Your task to perform on an android device: Show me popular videos on Youtube Image 0: 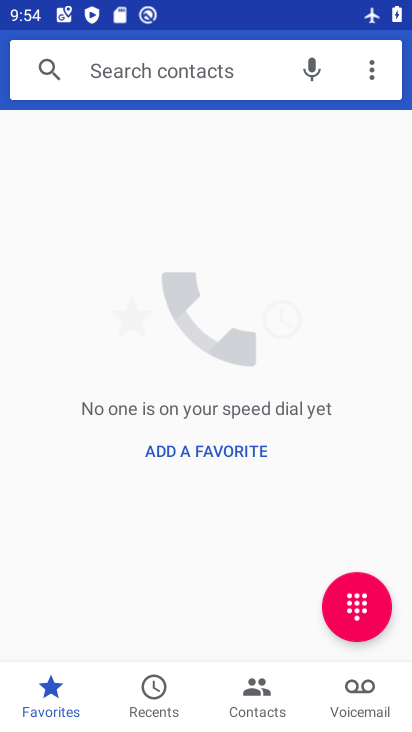
Step 0: press home button
Your task to perform on an android device: Show me popular videos on Youtube Image 1: 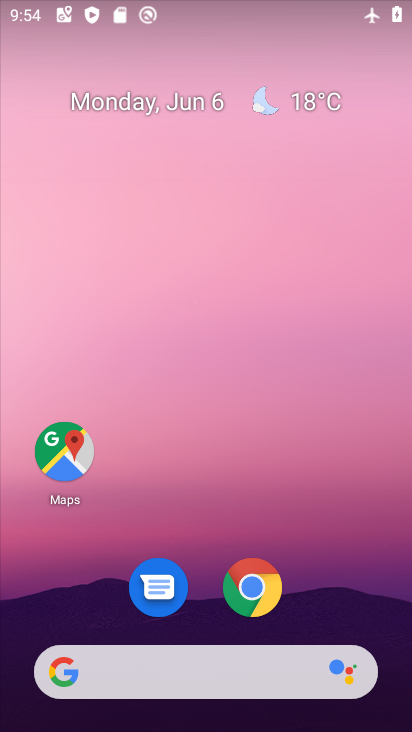
Step 1: drag from (378, 596) to (303, 143)
Your task to perform on an android device: Show me popular videos on Youtube Image 2: 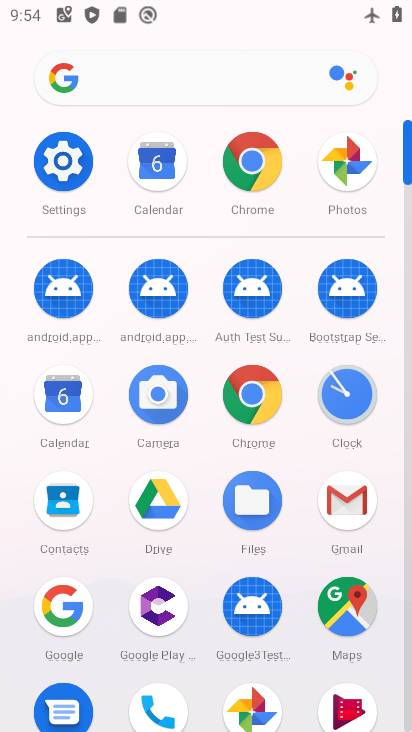
Step 2: drag from (287, 656) to (331, 321)
Your task to perform on an android device: Show me popular videos on Youtube Image 3: 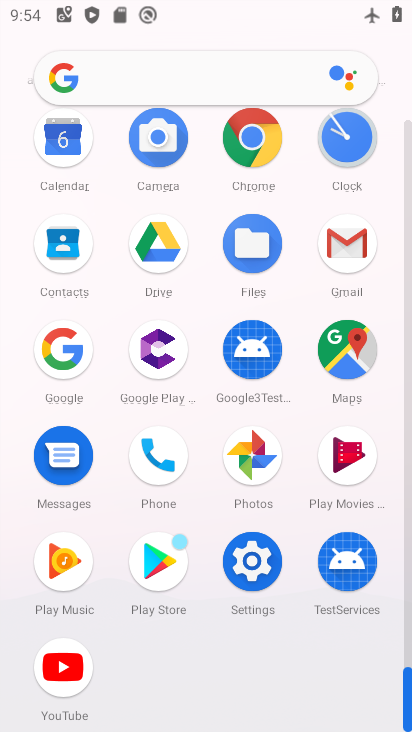
Step 3: click (76, 673)
Your task to perform on an android device: Show me popular videos on Youtube Image 4: 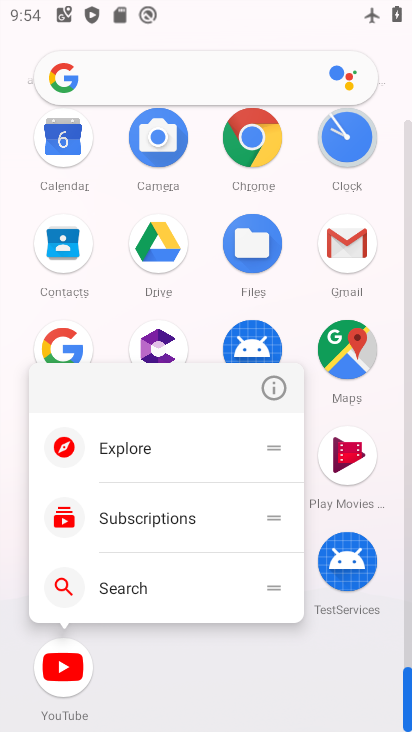
Step 4: click (64, 670)
Your task to perform on an android device: Show me popular videos on Youtube Image 5: 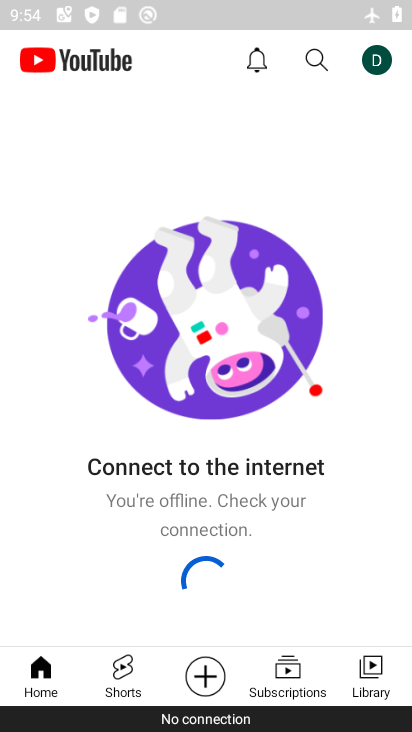
Step 5: task complete